Your task to perform on an android device: turn off location Image 0: 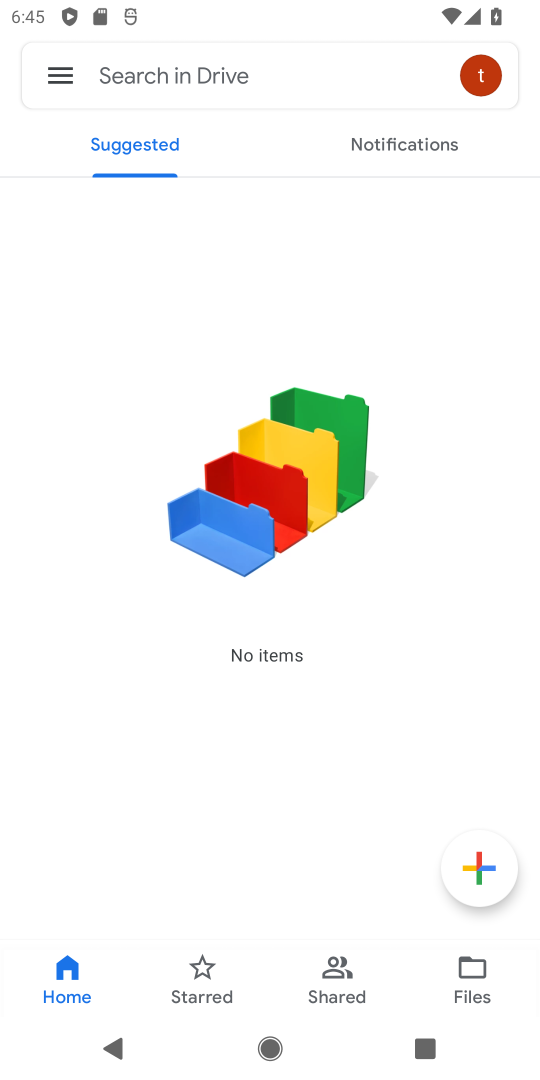
Step 0: press home button
Your task to perform on an android device: turn off location Image 1: 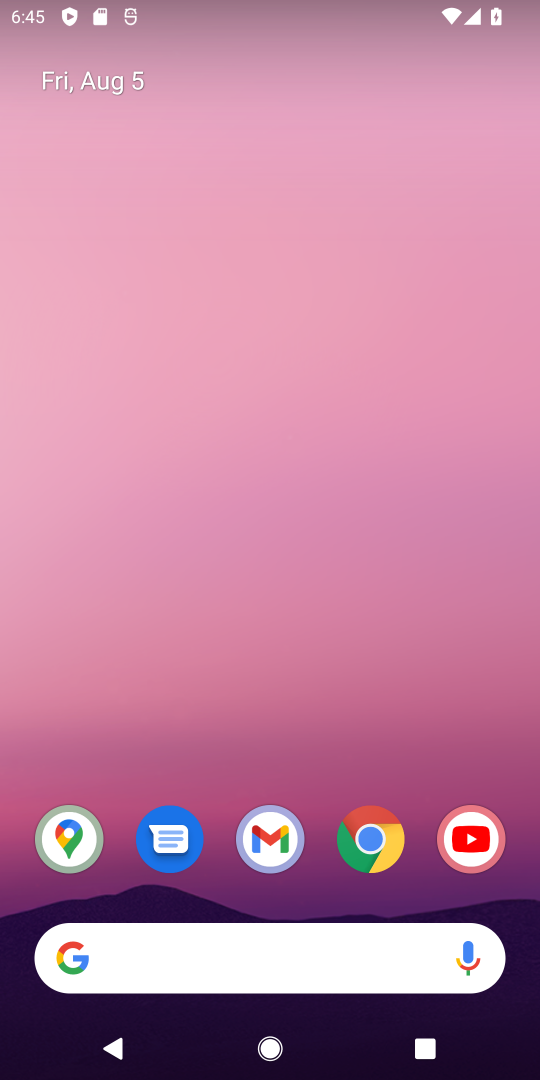
Step 1: drag from (311, 841) to (302, 86)
Your task to perform on an android device: turn off location Image 2: 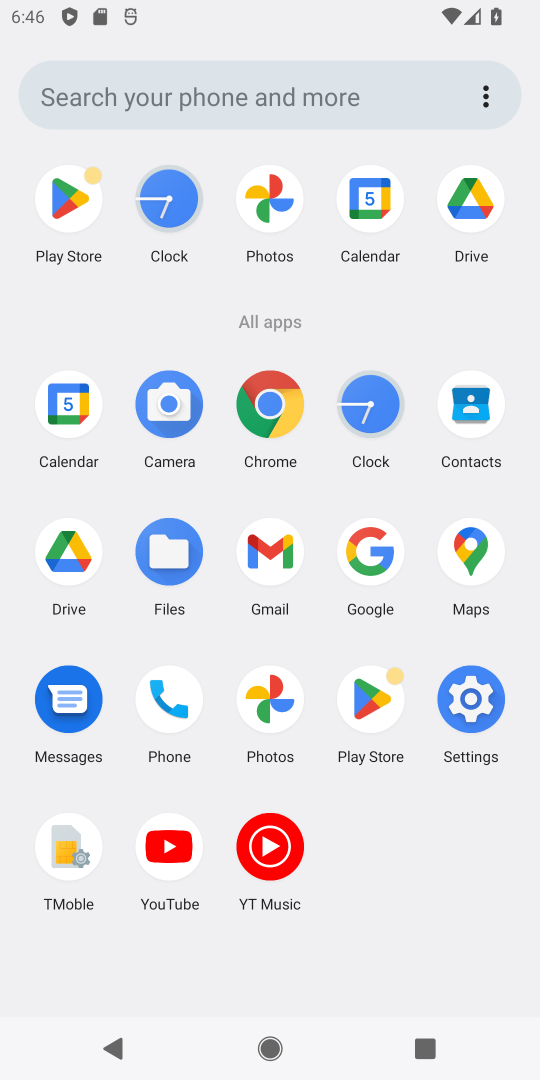
Step 2: click (474, 692)
Your task to perform on an android device: turn off location Image 3: 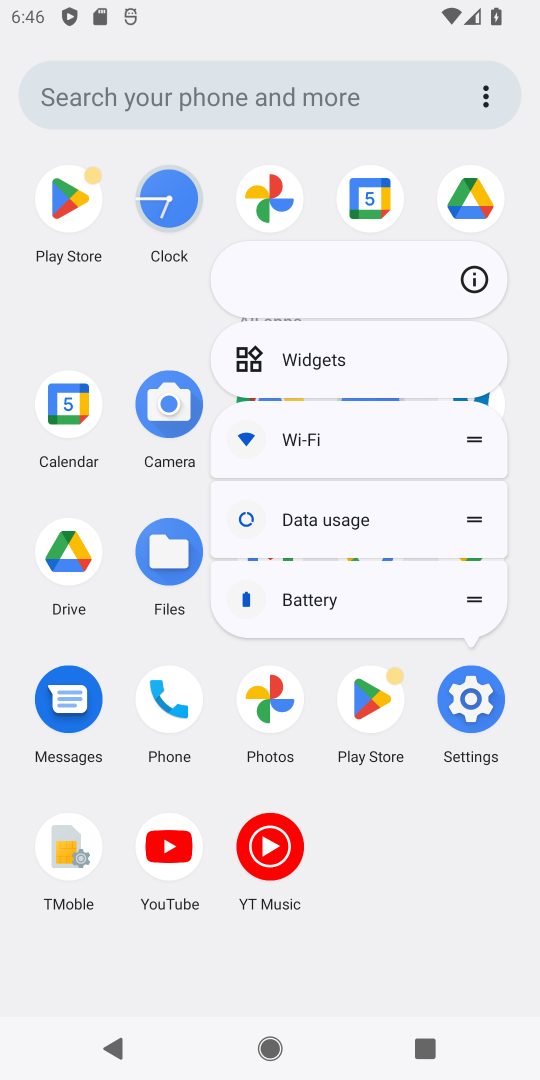
Step 3: click (459, 687)
Your task to perform on an android device: turn off location Image 4: 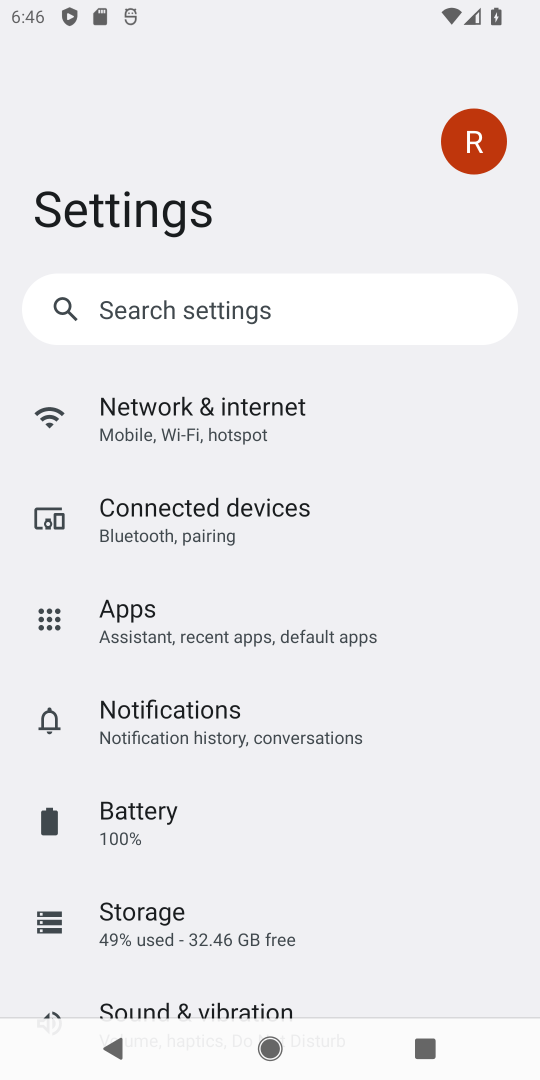
Step 4: drag from (124, 945) to (154, 570)
Your task to perform on an android device: turn off location Image 5: 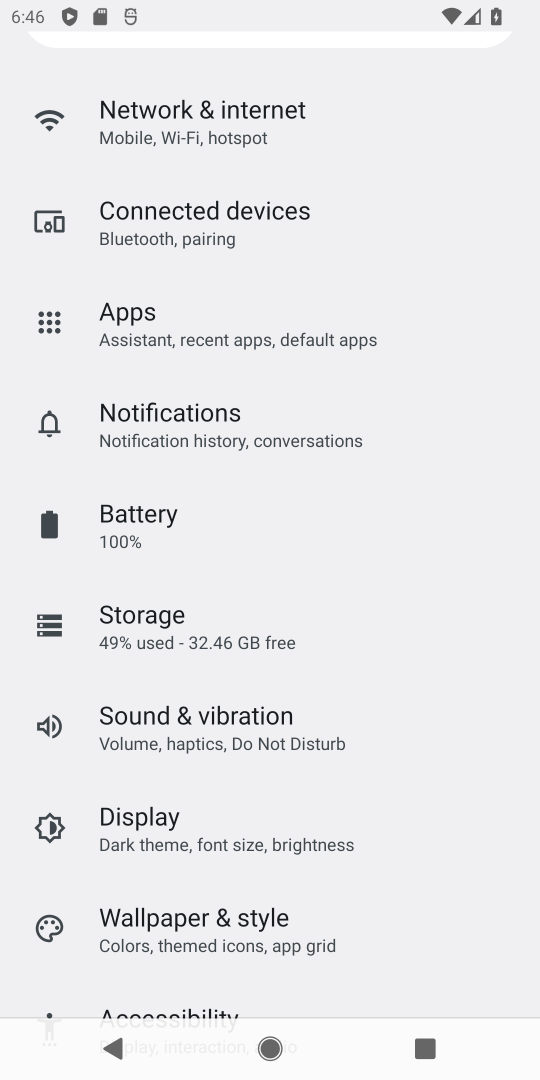
Step 5: drag from (174, 954) to (196, 439)
Your task to perform on an android device: turn off location Image 6: 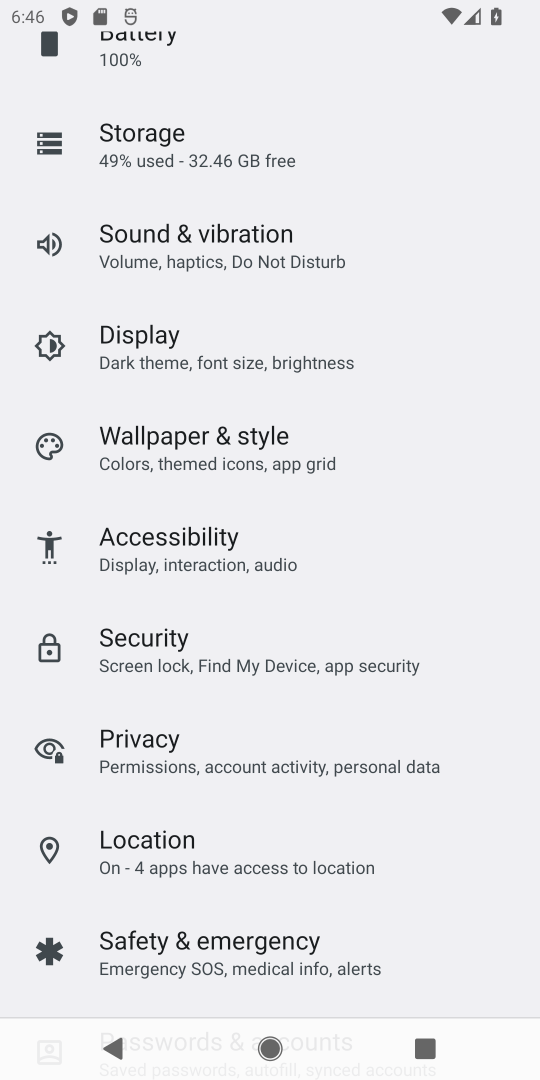
Step 6: click (145, 840)
Your task to perform on an android device: turn off location Image 7: 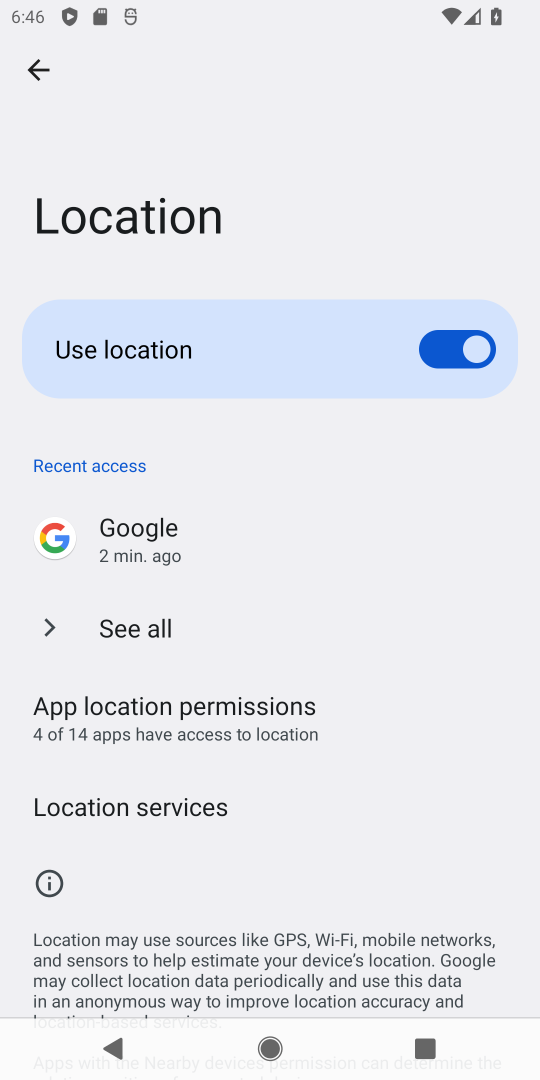
Step 7: click (459, 364)
Your task to perform on an android device: turn off location Image 8: 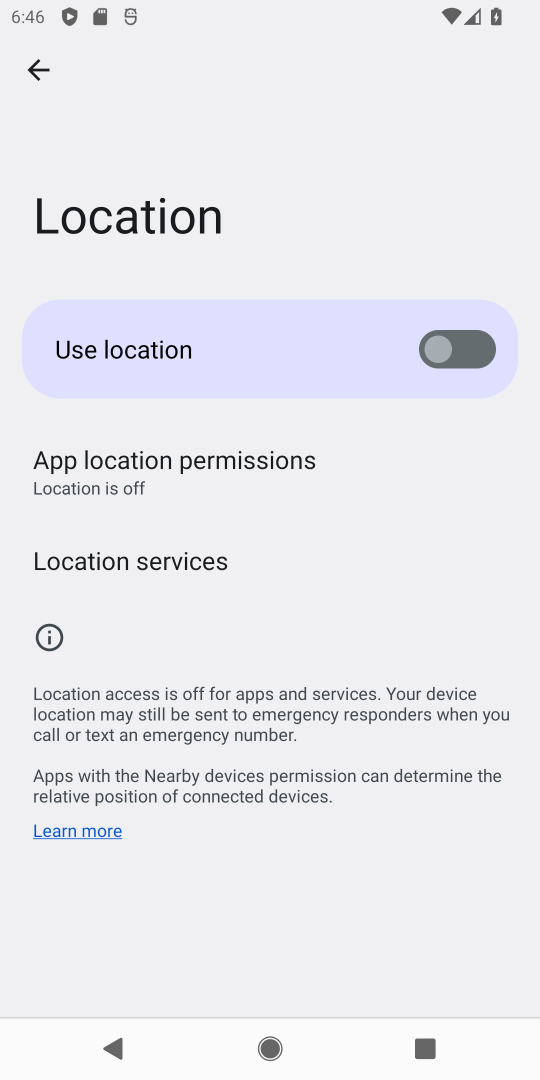
Step 8: task complete